Your task to perform on an android device: Open Google Maps and go to "Timeline" Image 0: 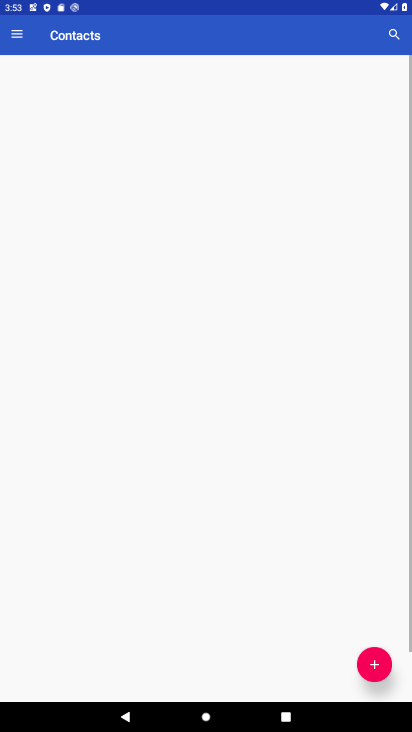
Step 0: drag from (348, 661) to (272, 108)
Your task to perform on an android device: Open Google Maps and go to "Timeline" Image 1: 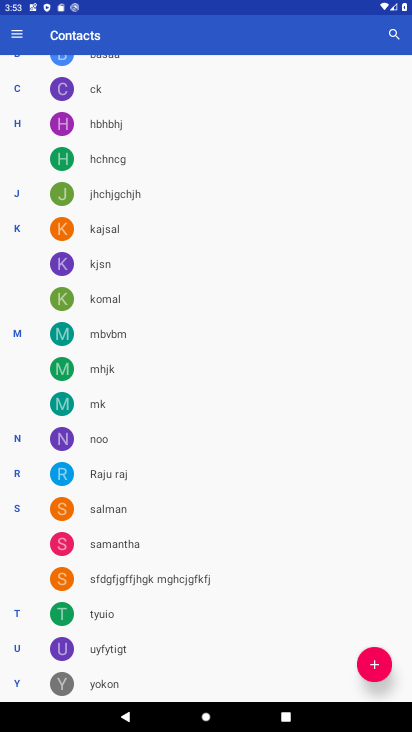
Step 1: press home button
Your task to perform on an android device: Open Google Maps and go to "Timeline" Image 2: 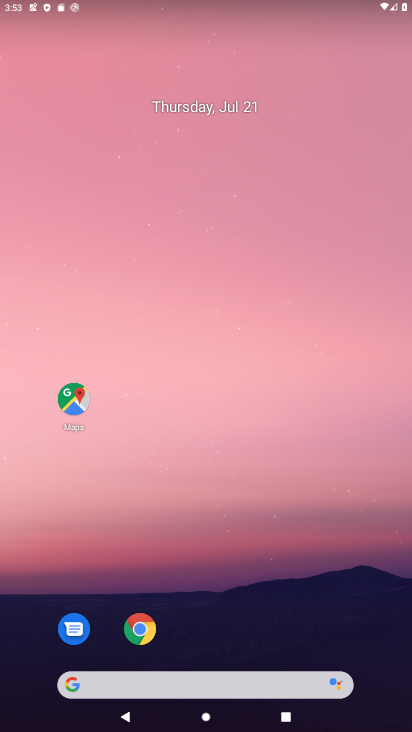
Step 2: click (67, 389)
Your task to perform on an android device: Open Google Maps and go to "Timeline" Image 3: 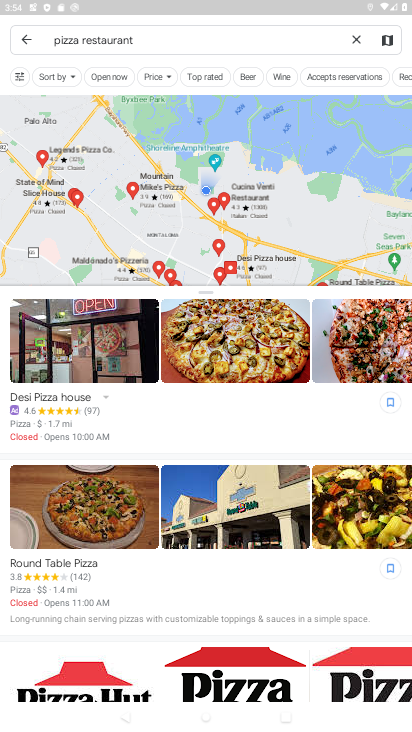
Step 3: click (28, 46)
Your task to perform on an android device: Open Google Maps and go to "Timeline" Image 4: 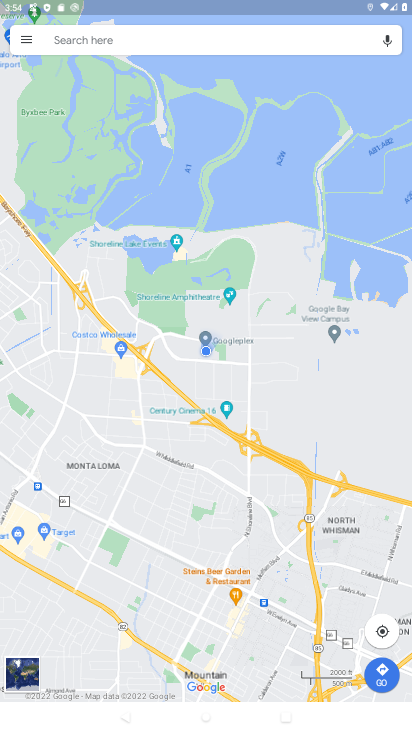
Step 4: click (28, 46)
Your task to perform on an android device: Open Google Maps and go to "Timeline" Image 5: 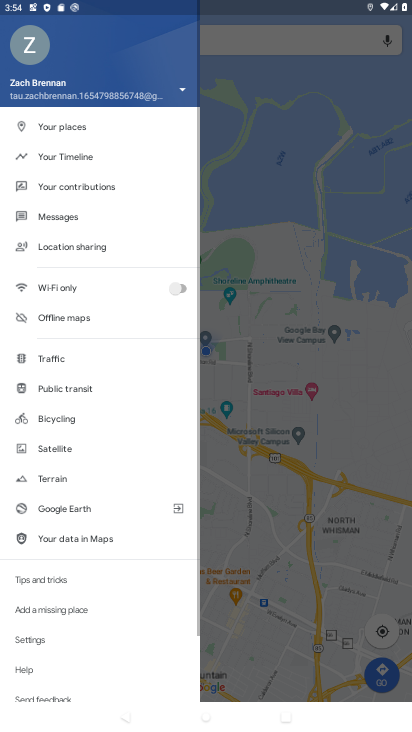
Step 5: click (96, 150)
Your task to perform on an android device: Open Google Maps and go to "Timeline" Image 6: 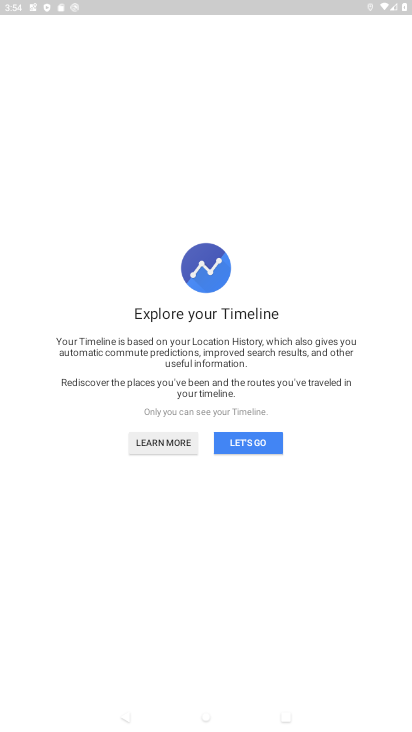
Step 6: click (254, 441)
Your task to perform on an android device: Open Google Maps and go to "Timeline" Image 7: 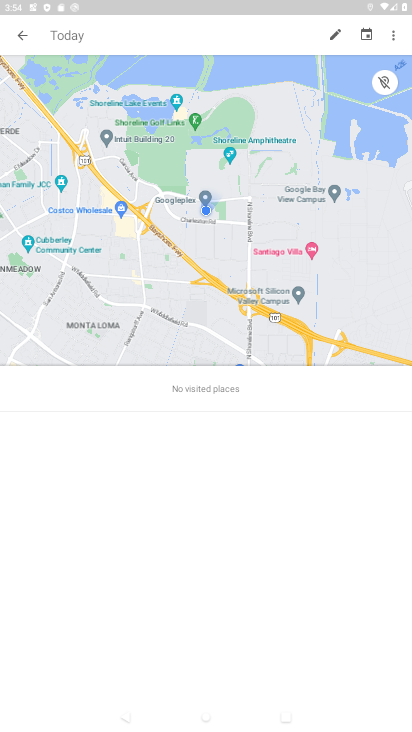
Step 7: task complete